Your task to perform on an android device: Open the stopwatch Image 0: 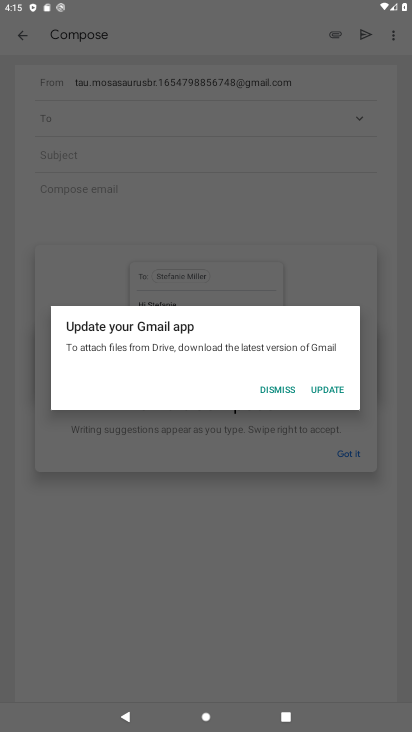
Step 0: press home button
Your task to perform on an android device: Open the stopwatch Image 1: 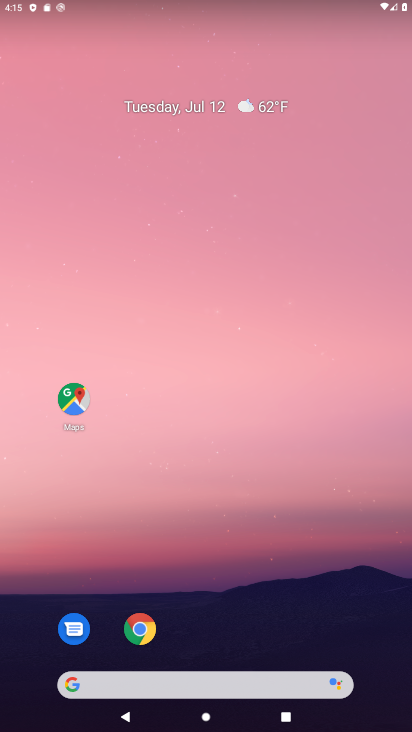
Step 1: drag from (181, 653) to (169, 37)
Your task to perform on an android device: Open the stopwatch Image 2: 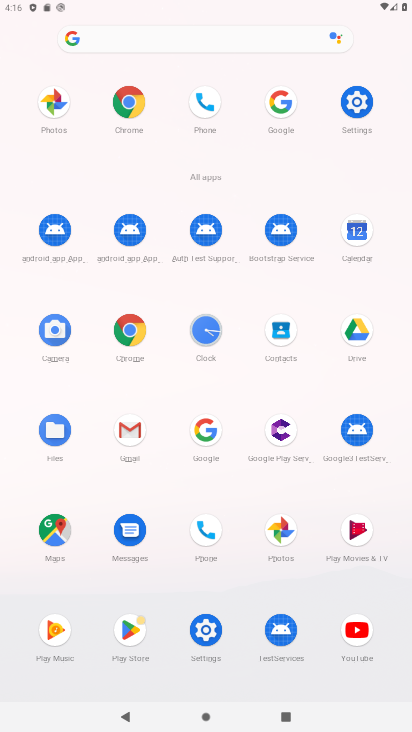
Step 2: click (208, 338)
Your task to perform on an android device: Open the stopwatch Image 3: 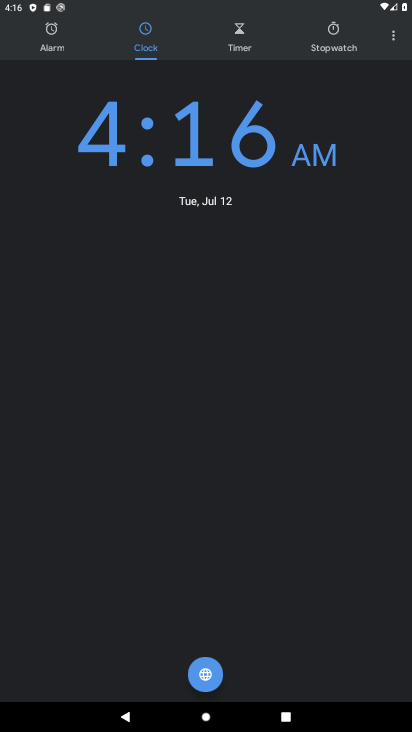
Step 3: click (306, 45)
Your task to perform on an android device: Open the stopwatch Image 4: 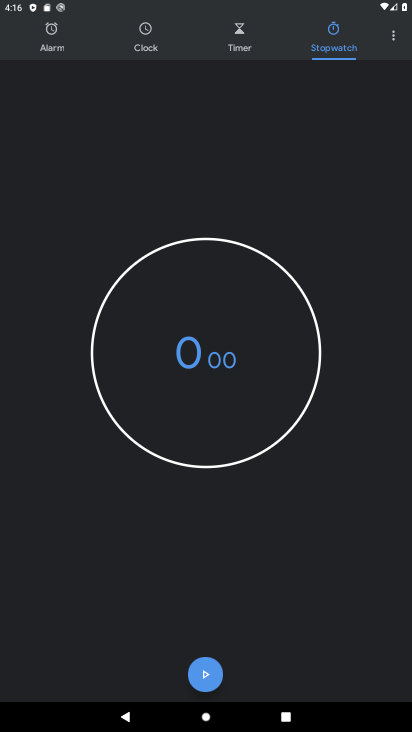
Step 4: task complete